Your task to perform on an android device: Open eBay Image 0: 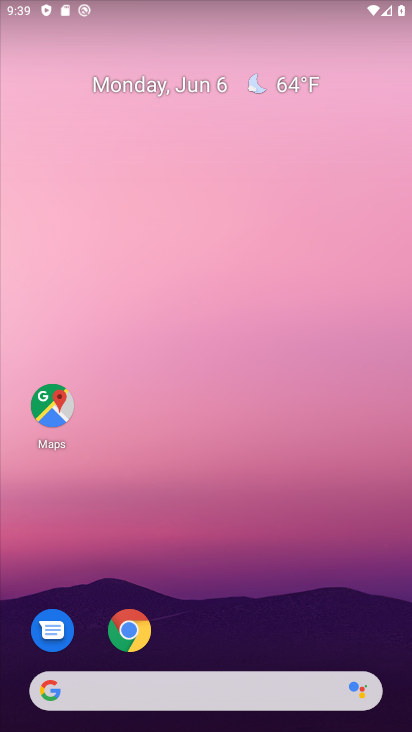
Step 0: click (128, 639)
Your task to perform on an android device: Open eBay Image 1: 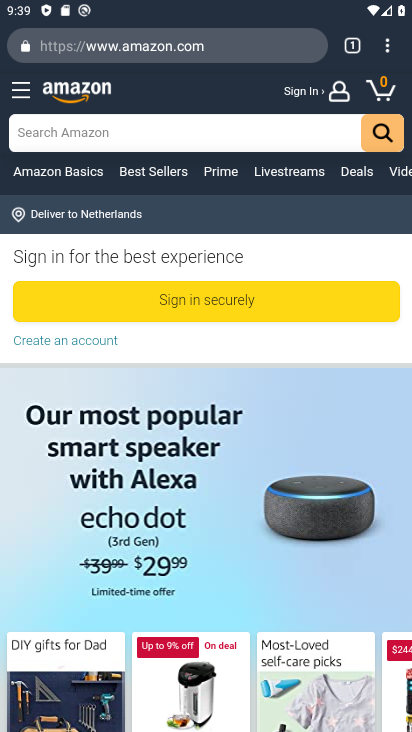
Step 1: click (363, 50)
Your task to perform on an android device: Open eBay Image 2: 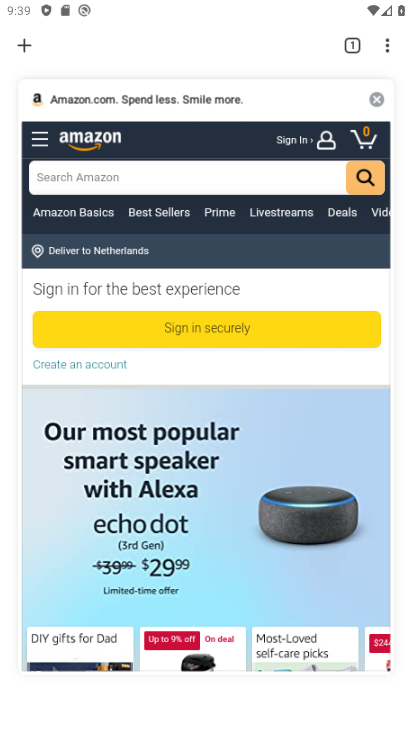
Step 2: click (376, 101)
Your task to perform on an android device: Open eBay Image 3: 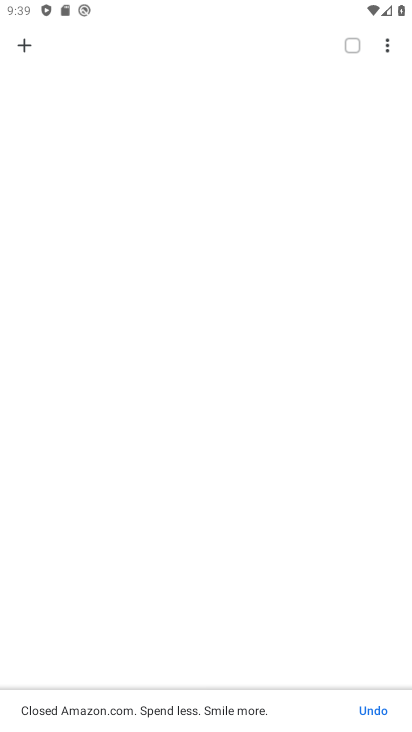
Step 3: click (25, 50)
Your task to perform on an android device: Open eBay Image 4: 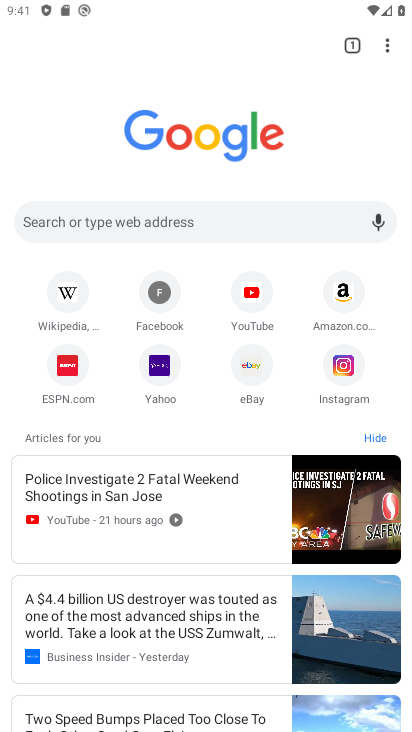
Step 4: click (249, 366)
Your task to perform on an android device: Open eBay Image 5: 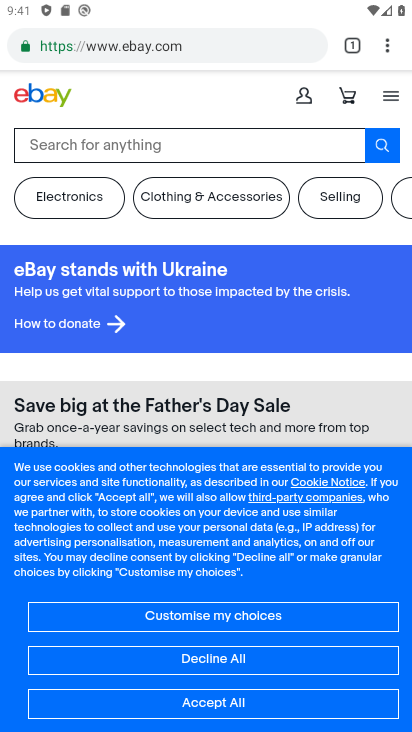
Step 5: task complete